Your task to perform on an android device: change your default location settings in chrome Image 0: 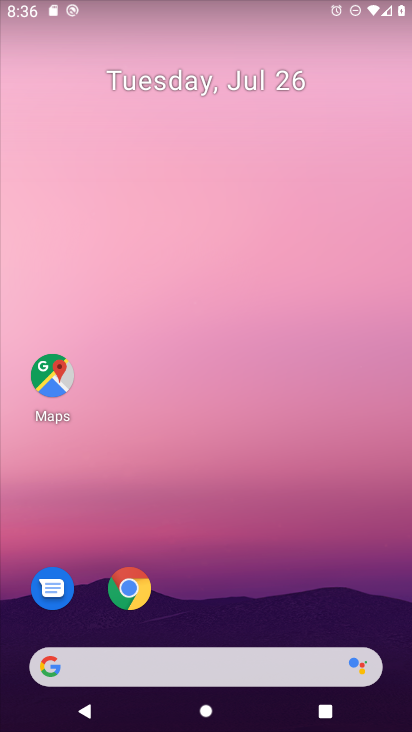
Step 0: drag from (190, 656) to (307, 174)
Your task to perform on an android device: change your default location settings in chrome Image 1: 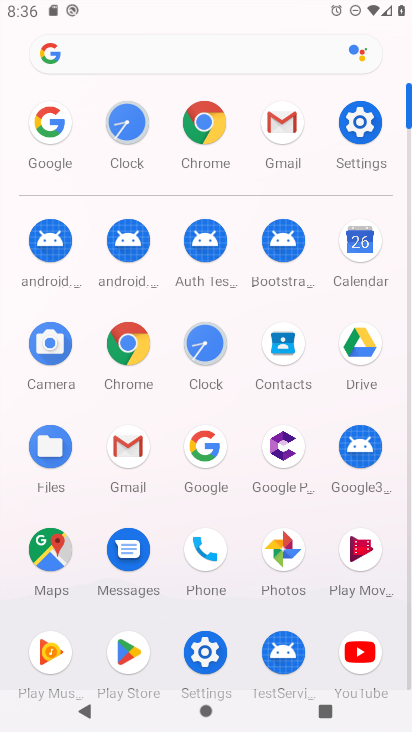
Step 1: click (222, 154)
Your task to perform on an android device: change your default location settings in chrome Image 2: 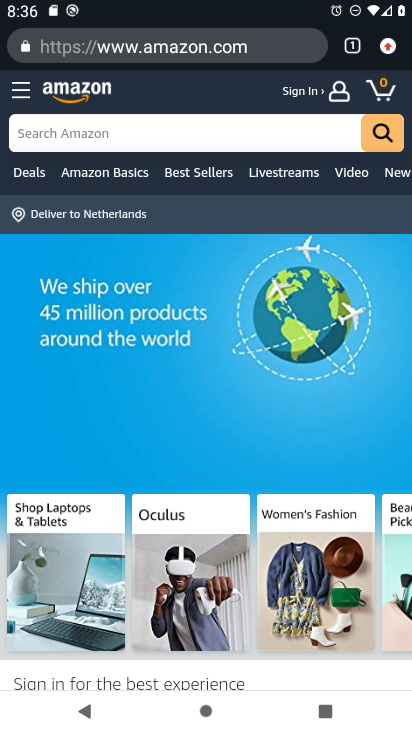
Step 2: click (397, 52)
Your task to perform on an android device: change your default location settings in chrome Image 3: 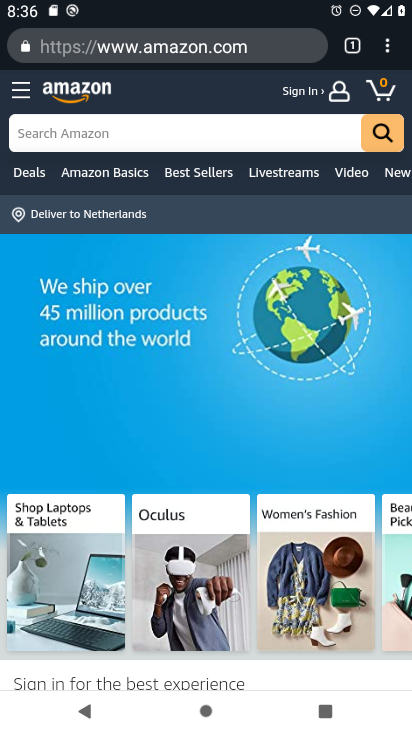
Step 3: click (388, 45)
Your task to perform on an android device: change your default location settings in chrome Image 4: 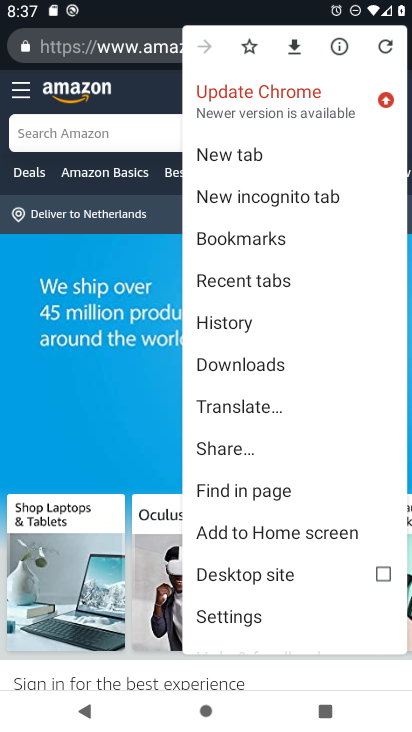
Step 4: click (250, 616)
Your task to perform on an android device: change your default location settings in chrome Image 5: 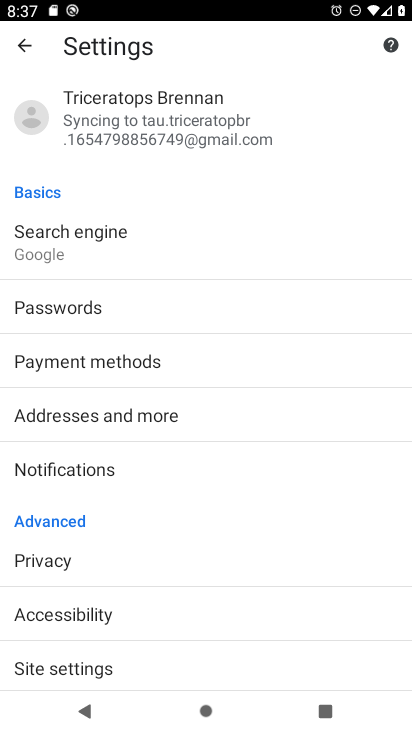
Step 5: drag from (250, 616) to (251, 346)
Your task to perform on an android device: change your default location settings in chrome Image 6: 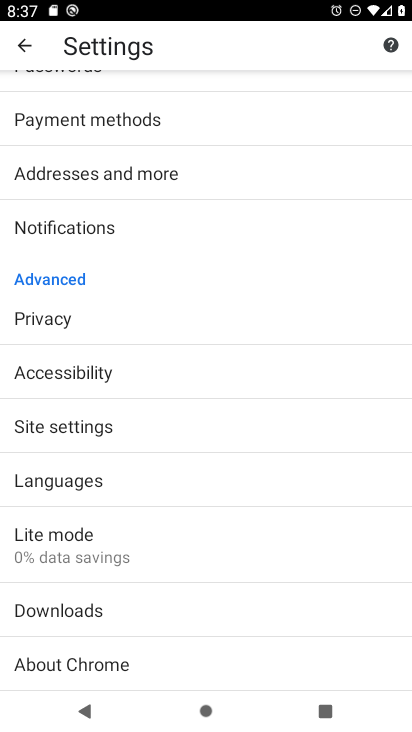
Step 6: click (82, 433)
Your task to perform on an android device: change your default location settings in chrome Image 7: 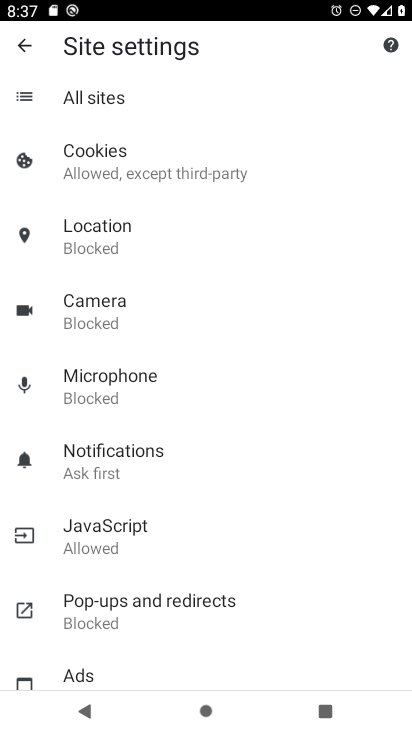
Step 7: click (99, 245)
Your task to perform on an android device: change your default location settings in chrome Image 8: 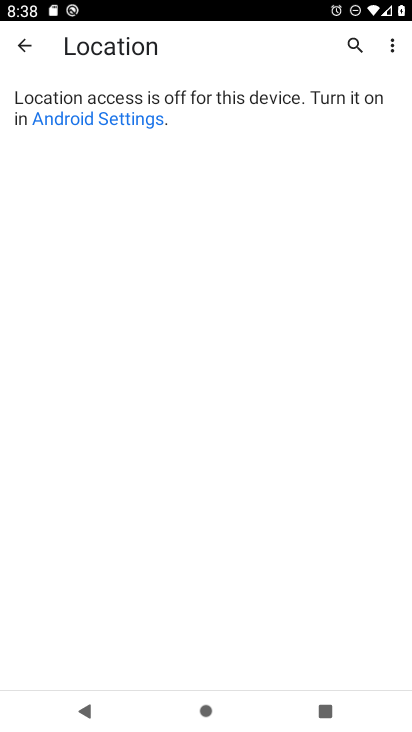
Step 8: task complete